Your task to perform on an android device: Open the map Image 0: 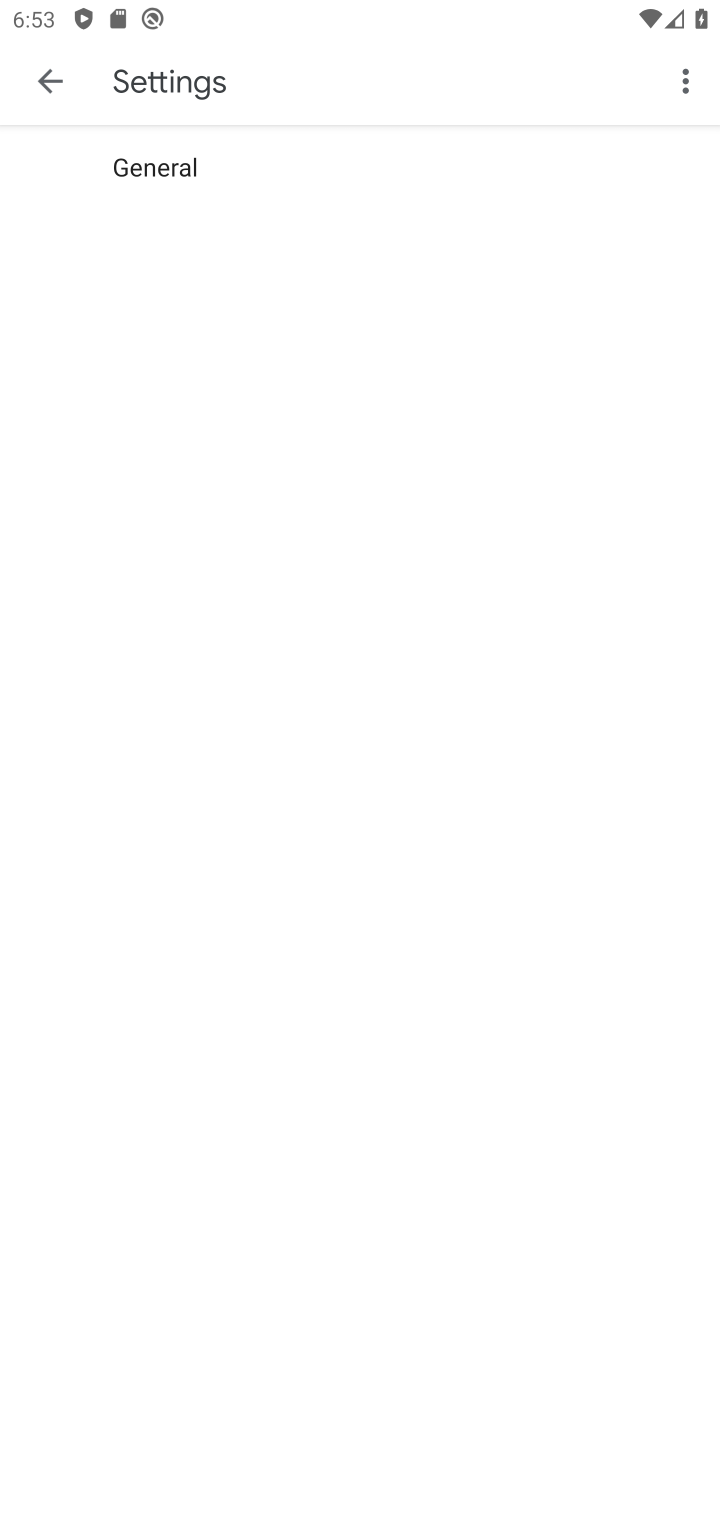
Step 0: press home button
Your task to perform on an android device: Open the map Image 1: 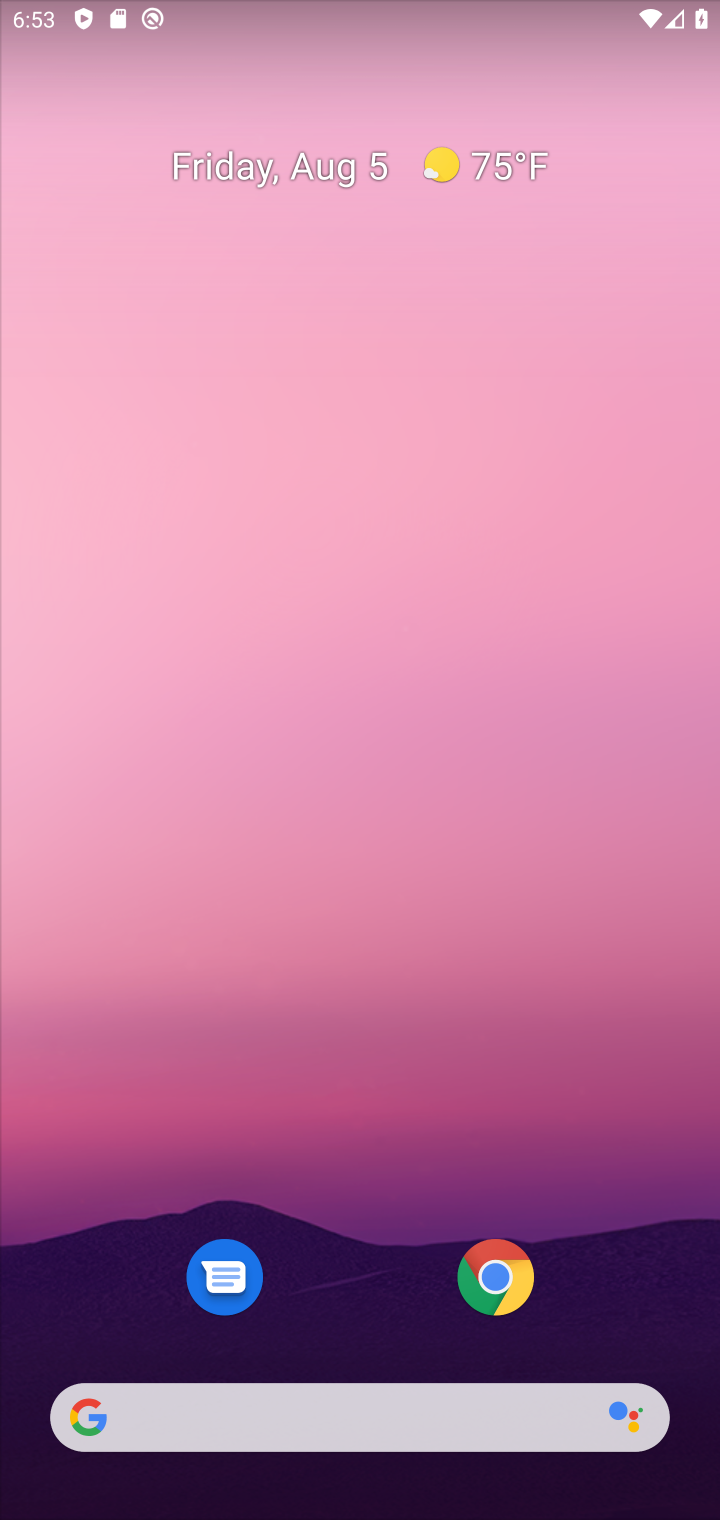
Step 1: drag from (346, 1273) to (354, 81)
Your task to perform on an android device: Open the map Image 2: 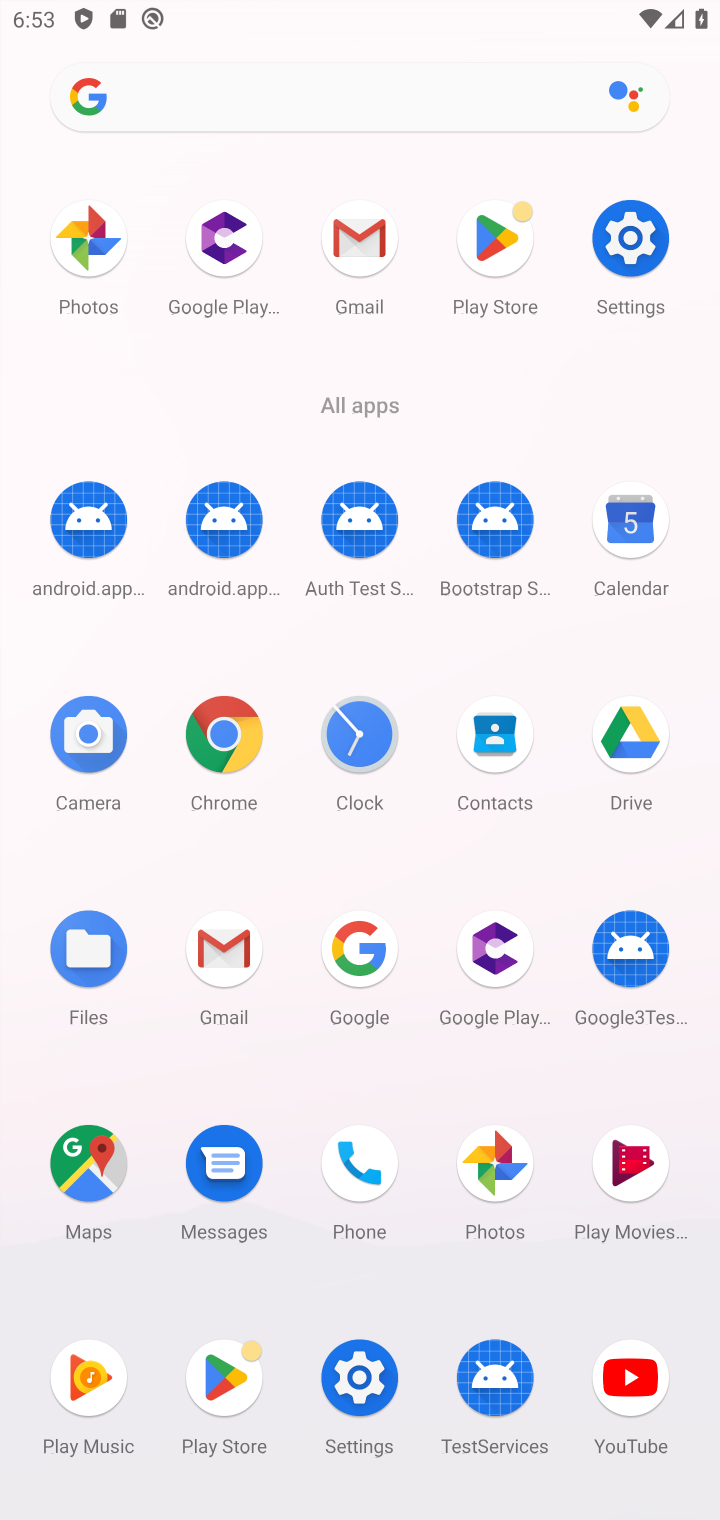
Step 2: click (90, 1145)
Your task to perform on an android device: Open the map Image 3: 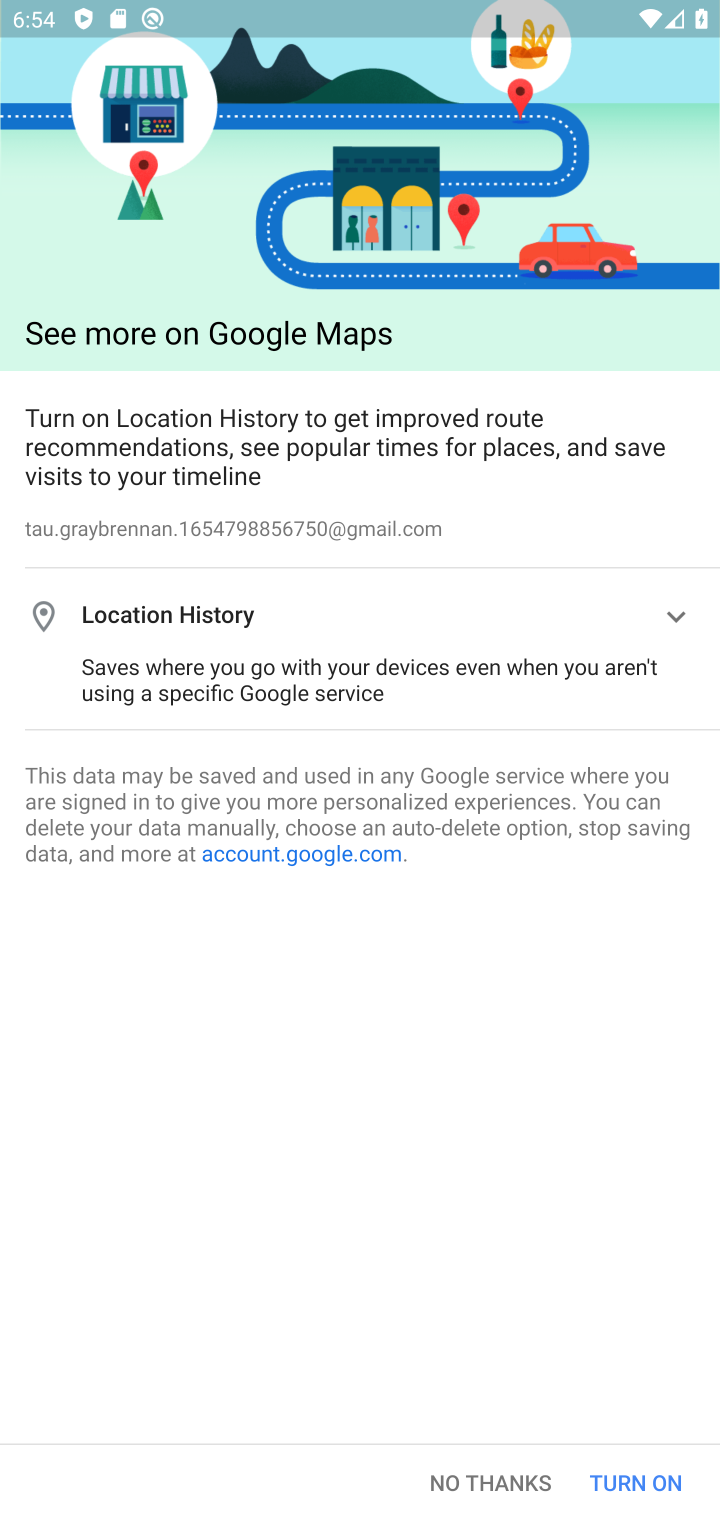
Step 3: click (654, 1478)
Your task to perform on an android device: Open the map Image 4: 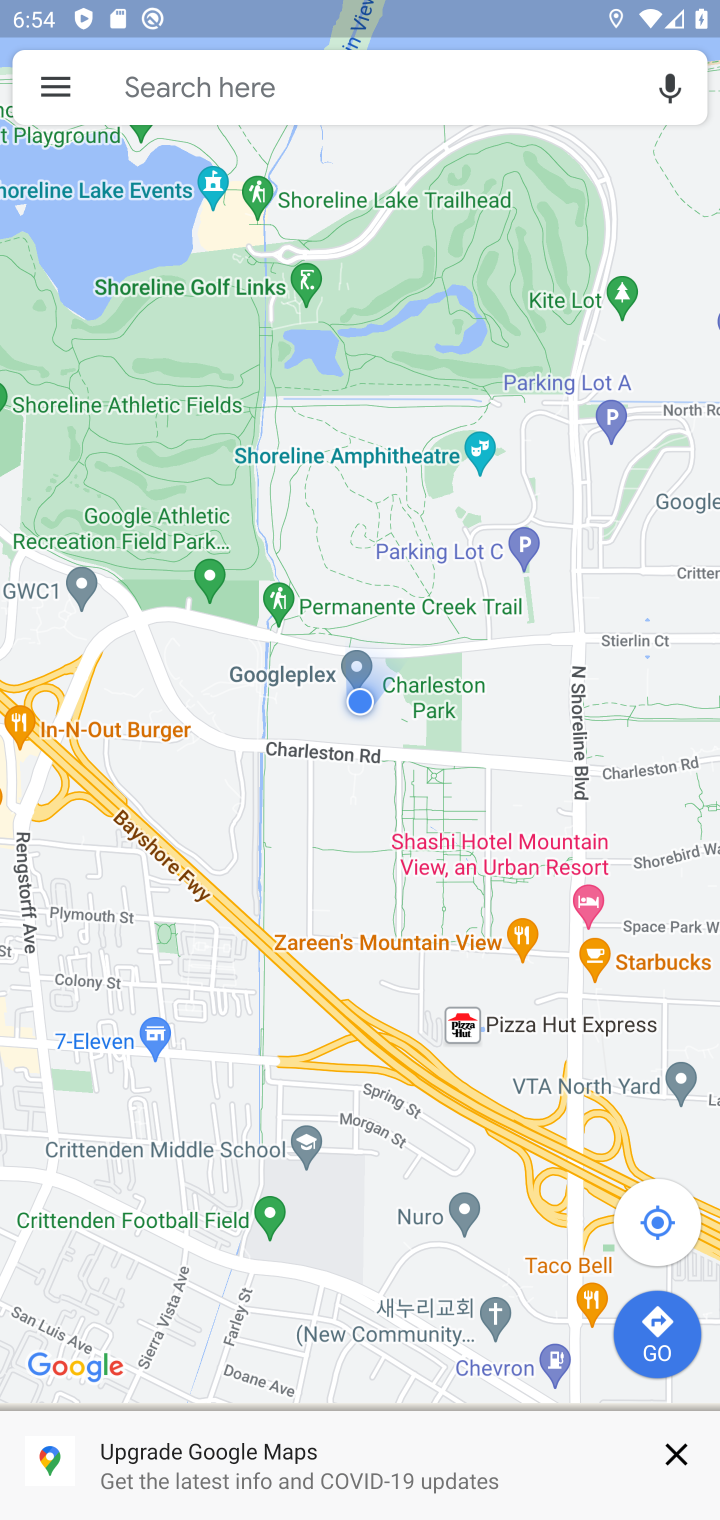
Step 4: task complete